Your task to perform on an android device: Go to Maps Image 0: 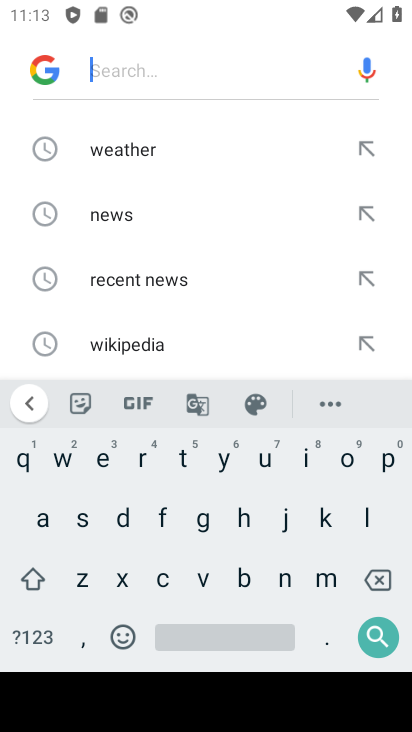
Step 0: press home button
Your task to perform on an android device: Go to Maps Image 1: 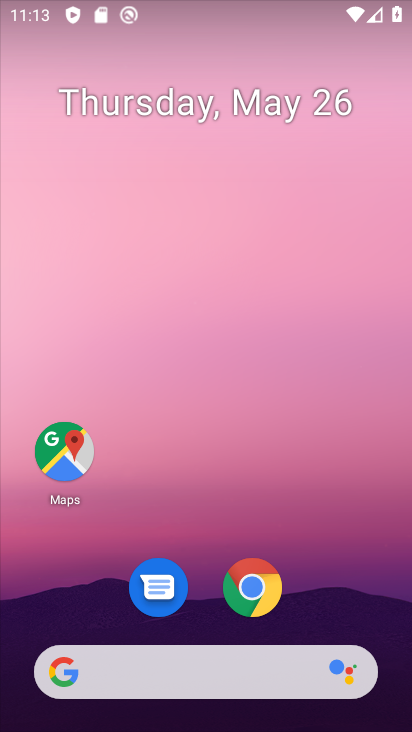
Step 1: drag from (237, 634) to (229, 3)
Your task to perform on an android device: Go to Maps Image 2: 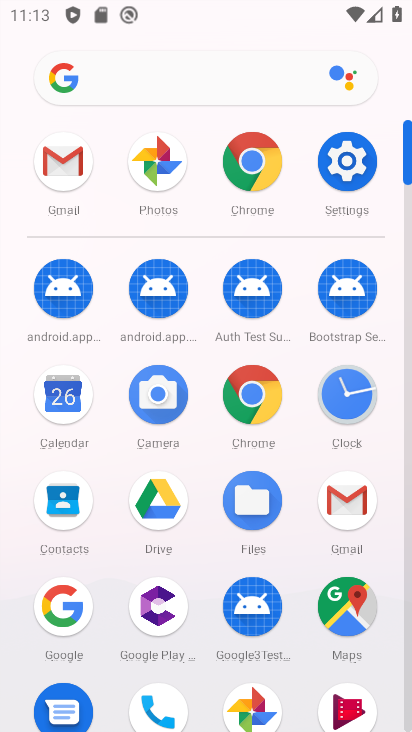
Step 2: click (343, 598)
Your task to perform on an android device: Go to Maps Image 3: 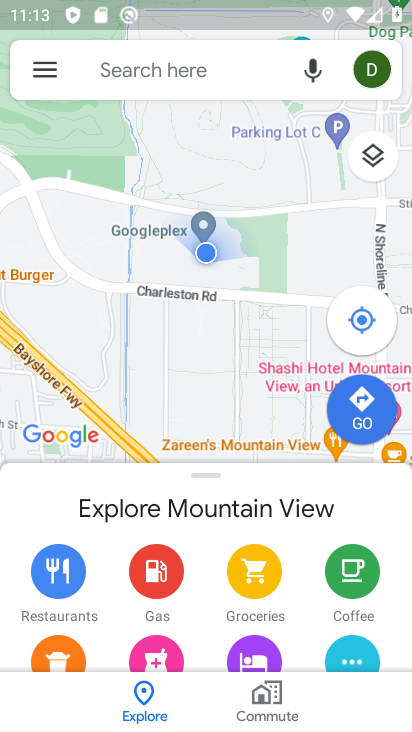
Step 3: click (356, 325)
Your task to perform on an android device: Go to Maps Image 4: 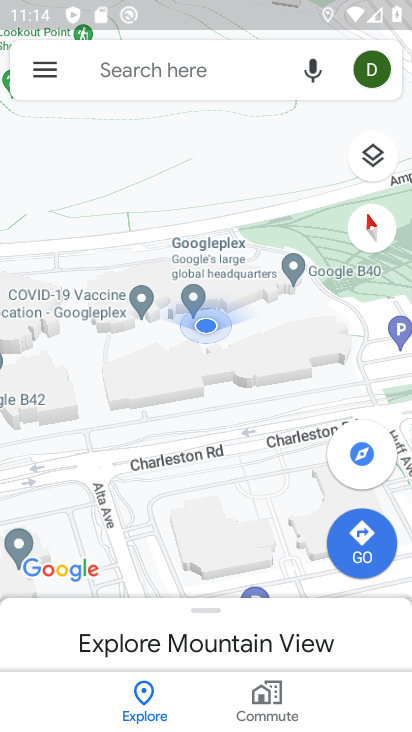
Step 4: task complete